Your task to perform on an android device: toggle show notifications on the lock screen Image 0: 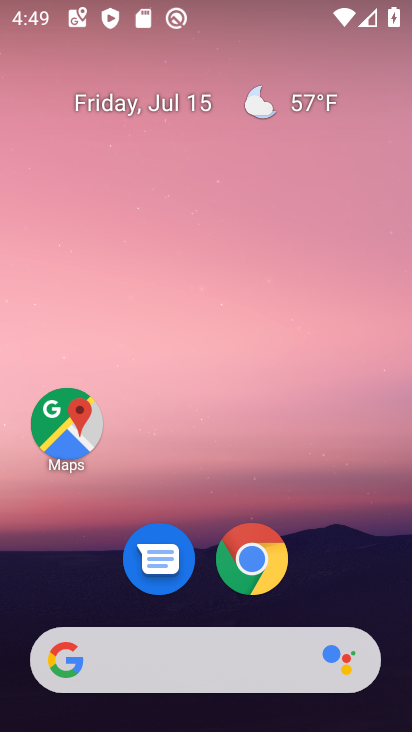
Step 0: drag from (63, 568) to (162, 25)
Your task to perform on an android device: toggle show notifications on the lock screen Image 1: 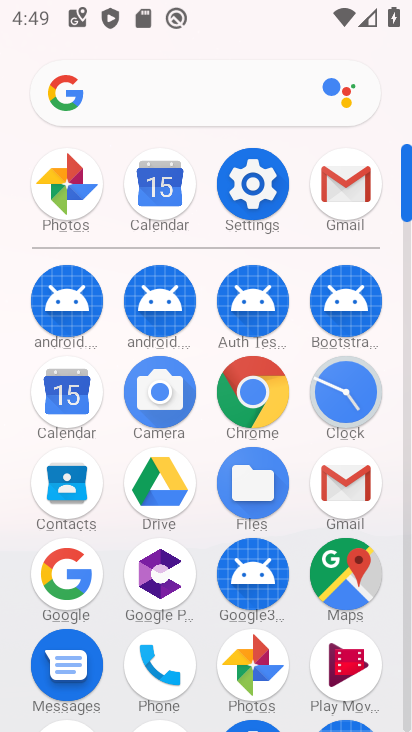
Step 1: click (262, 183)
Your task to perform on an android device: toggle show notifications on the lock screen Image 2: 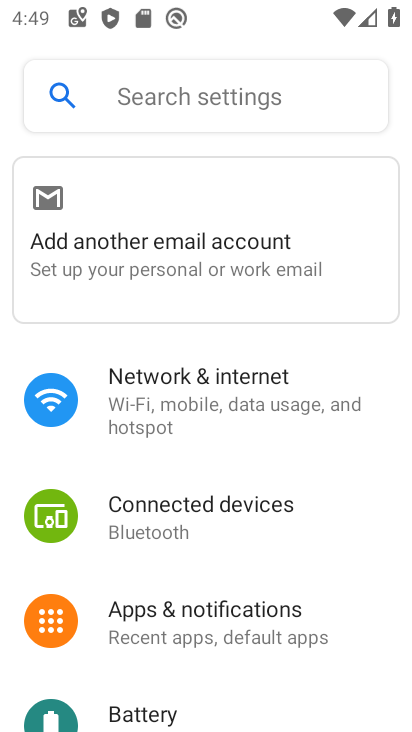
Step 2: click (203, 607)
Your task to perform on an android device: toggle show notifications on the lock screen Image 3: 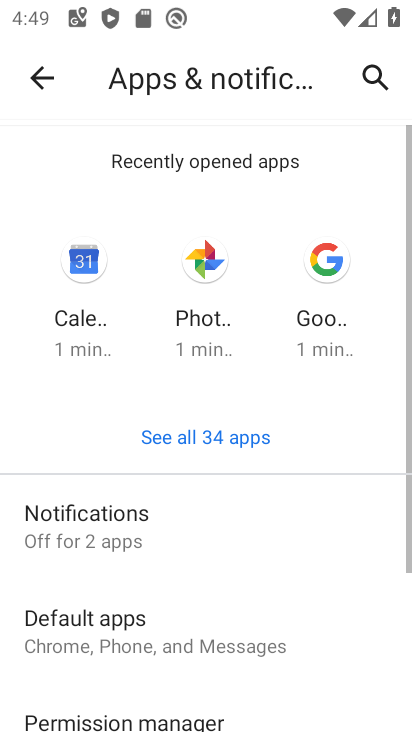
Step 3: click (117, 520)
Your task to perform on an android device: toggle show notifications on the lock screen Image 4: 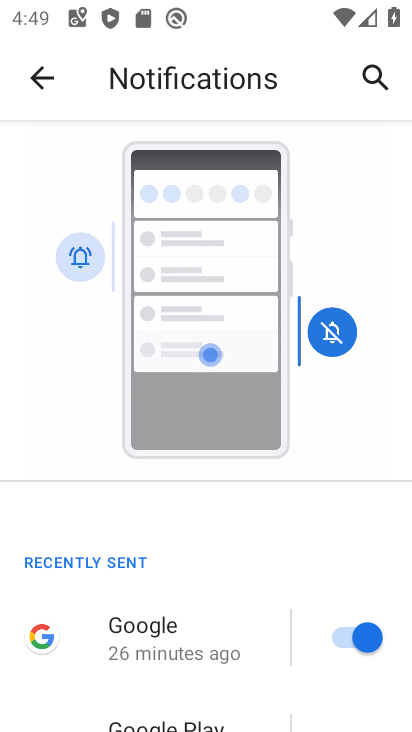
Step 4: drag from (195, 661) to (187, 35)
Your task to perform on an android device: toggle show notifications on the lock screen Image 5: 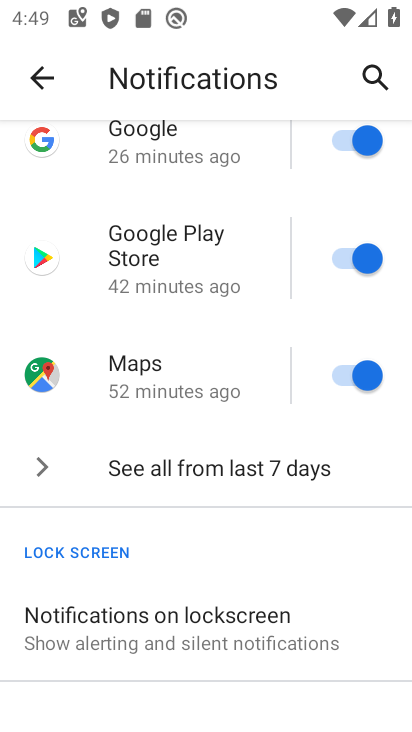
Step 5: click (90, 627)
Your task to perform on an android device: toggle show notifications on the lock screen Image 6: 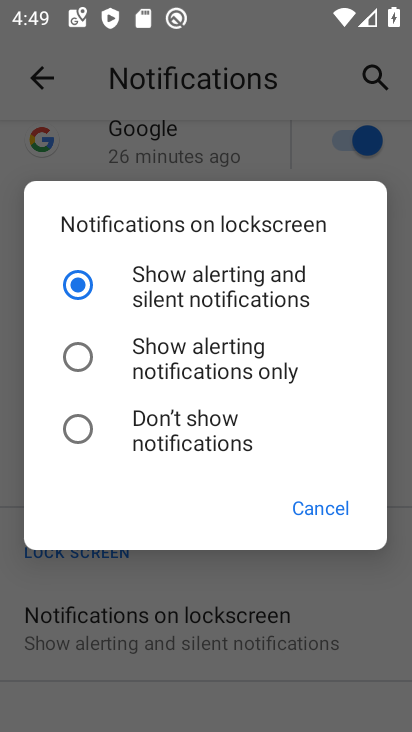
Step 6: task complete